Your task to perform on an android device: see tabs open on other devices in the chrome app Image 0: 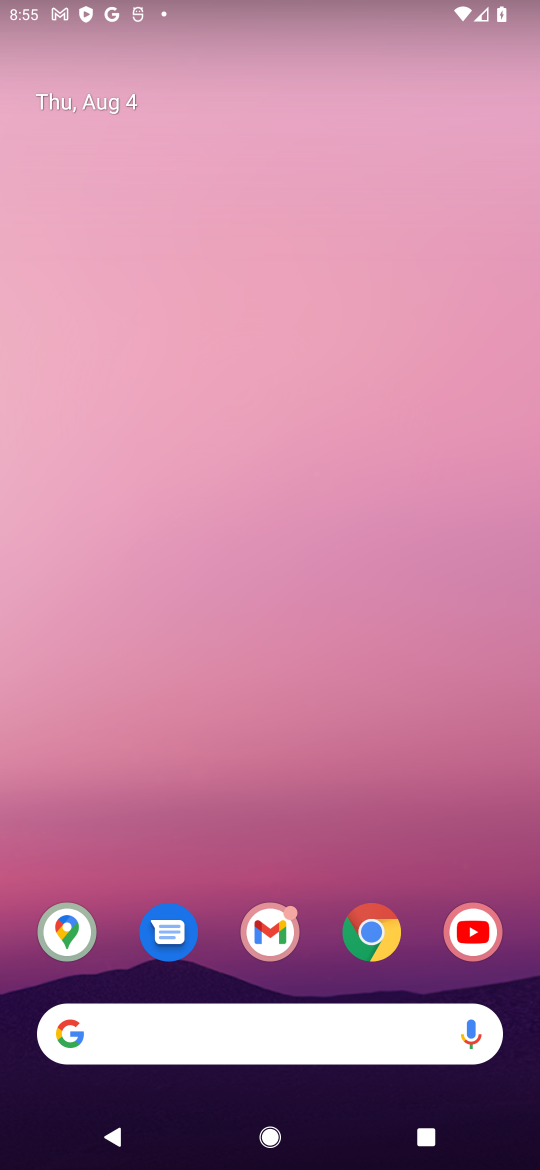
Step 0: click (373, 933)
Your task to perform on an android device: see tabs open on other devices in the chrome app Image 1: 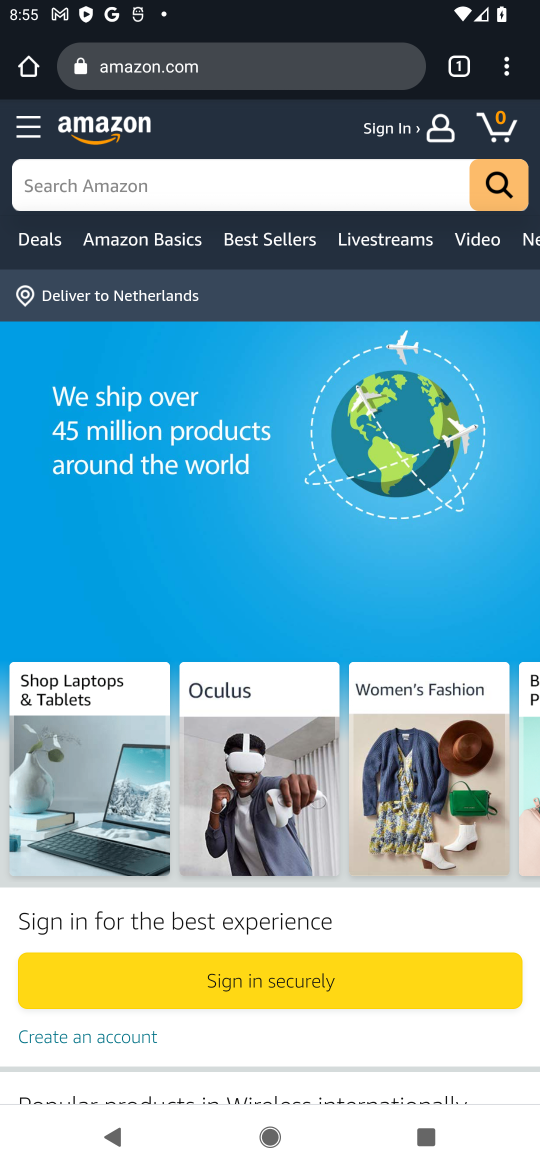
Step 1: click (500, 73)
Your task to perform on an android device: see tabs open on other devices in the chrome app Image 2: 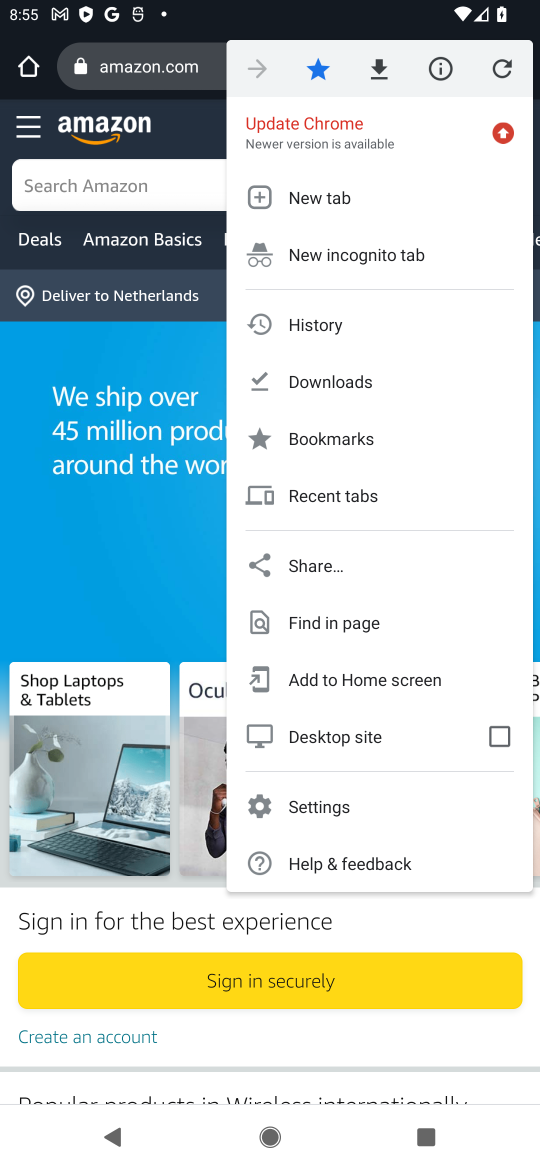
Step 2: click (334, 491)
Your task to perform on an android device: see tabs open on other devices in the chrome app Image 3: 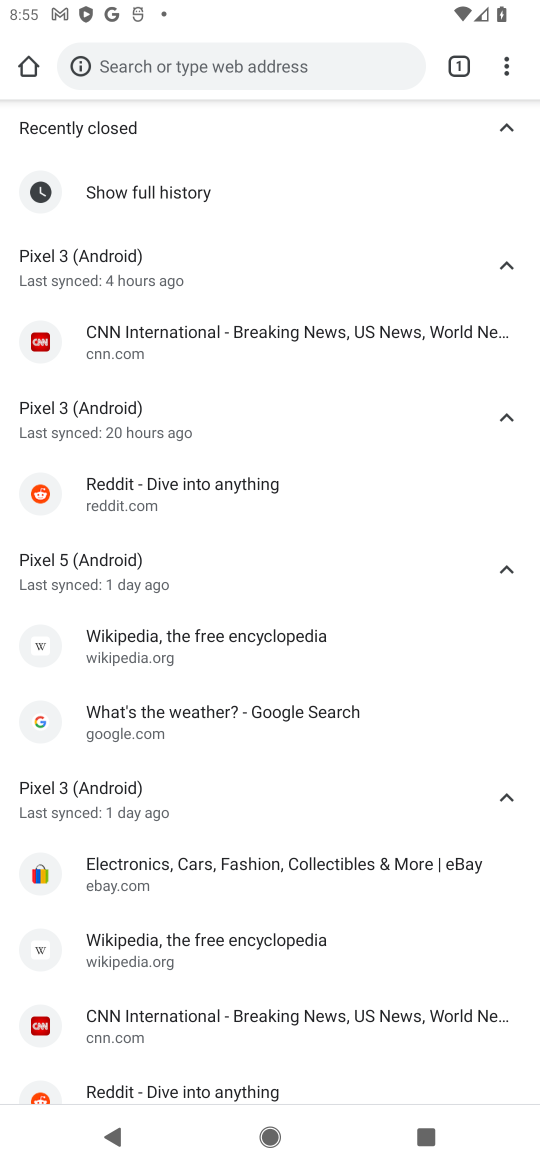
Step 3: task complete